Your task to perform on an android device: Go to Yahoo.com Image 0: 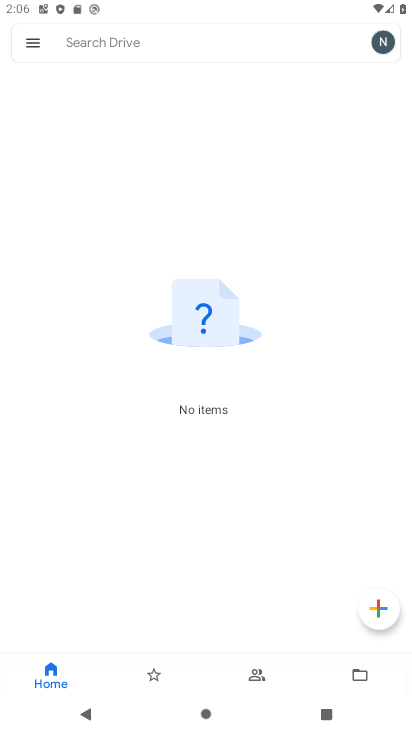
Step 0: press home button
Your task to perform on an android device: Go to Yahoo.com Image 1: 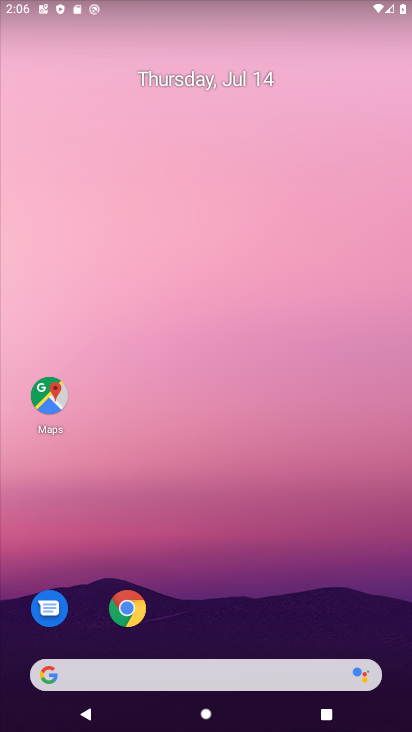
Step 1: drag from (213, 657) to (219, 249)
Your task to perform on an android device: Go to Yahoo.com Image 2: 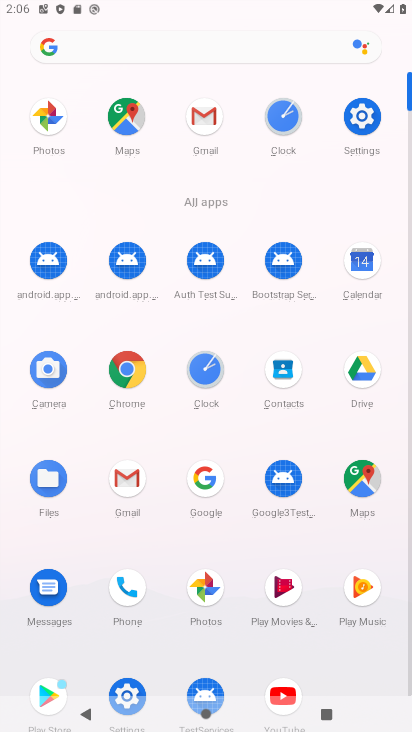
Step 2: click (124, 376)
Your task to perform on an android device: Go to Yahoo.com Image 3: 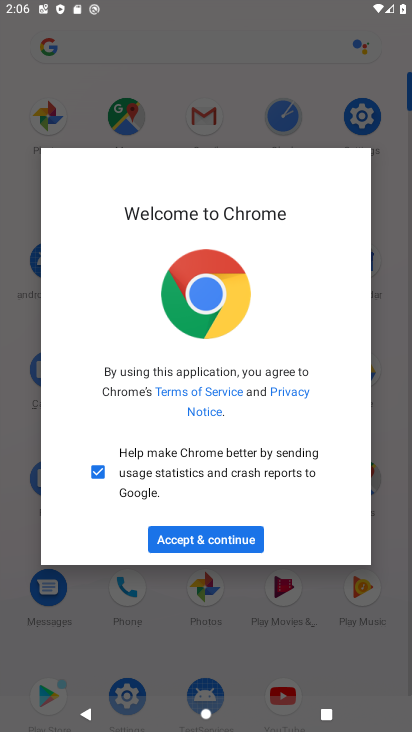
Step 3: click (214, 537)
Your task to perform on an android device: Go to Yahoo.com Image 4: 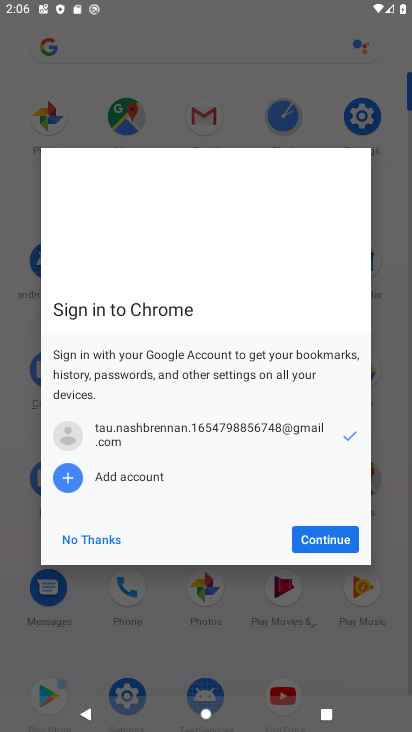
Step 4: click (322, 542)
Your task to perform on an android device: Go to Yahoo.com Image 5: 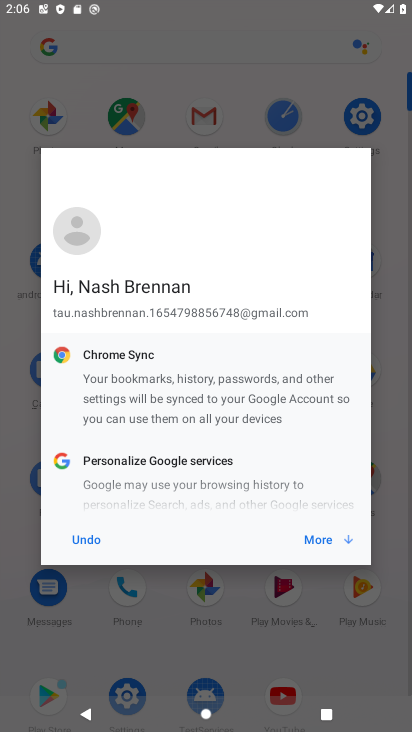
Step 5: click (322, 542)
Your task to perform on an android device: Go to Yahoo.com Image 6: 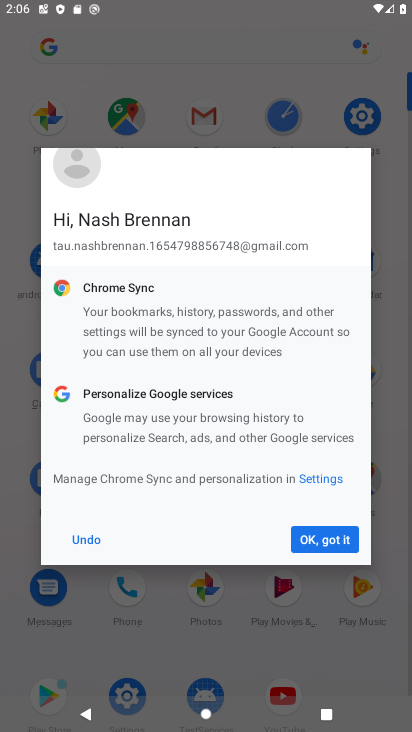
Step 6: click (322, 542)
Your task to perform on an android device: Go to Yahoo.com Image 7: 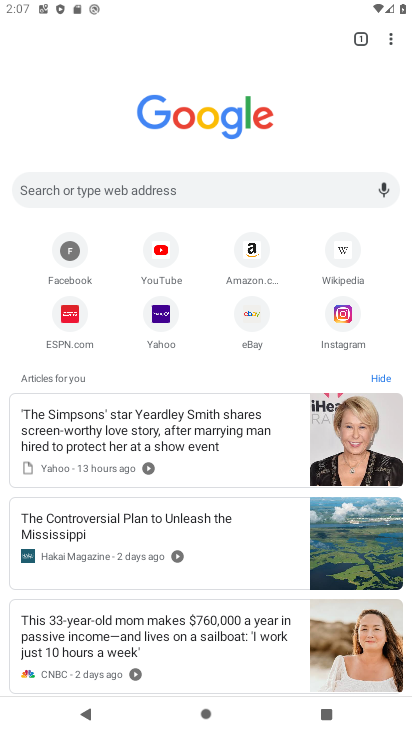
Step 7: drag from (196, 646) to (189, 291)
Your task to perform on an android device: Go to Yahoo.com Image 8: 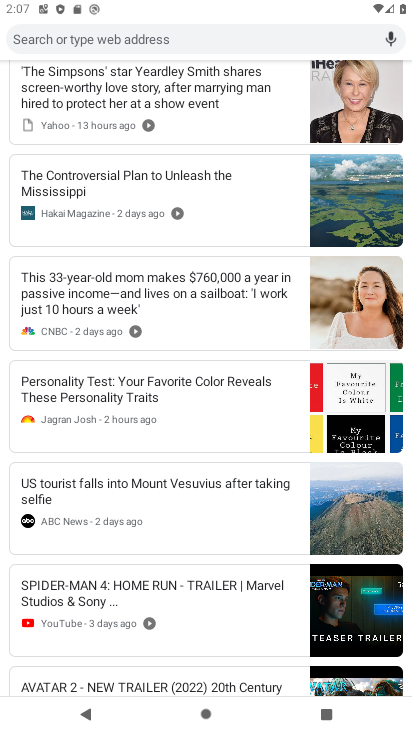
Step 8: drag from (169, 95) to (192, 529)
Your task to perform on an android device: Go to Yahoo.com Image 9: 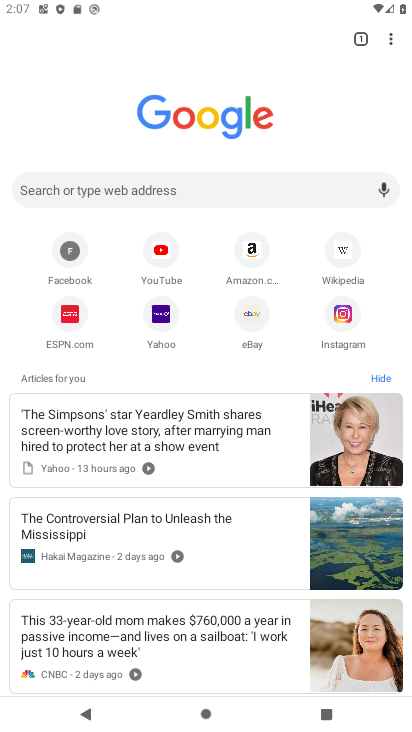
Step 9: click (160, 314)
Your task to perform on an android device: Go to Yahoo.com Image 10: 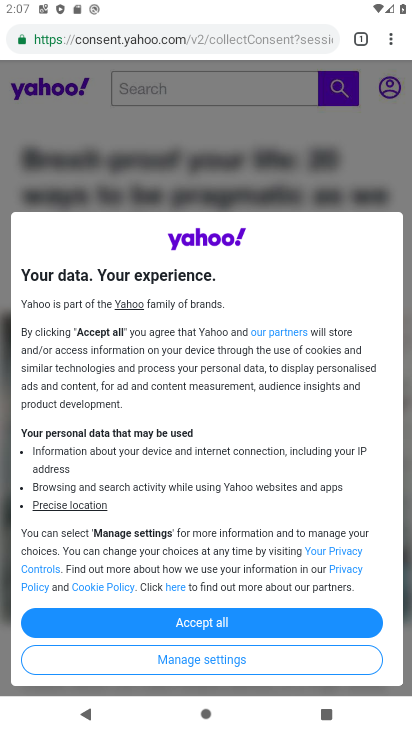
Step 10: task complete